Your task to perform on an android device: show emergency info Image 0: 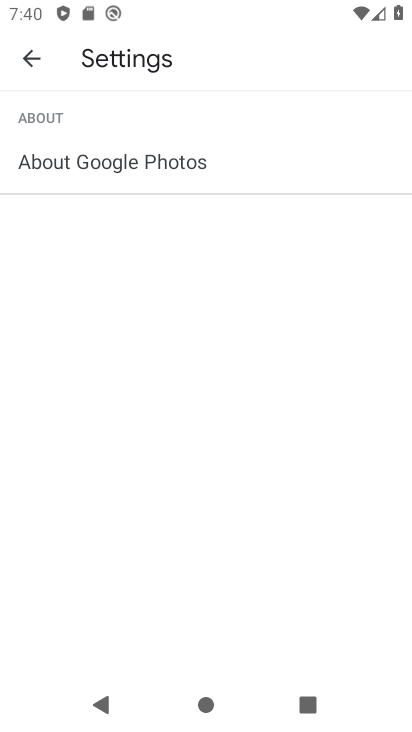
Step 0: press home button
Your task to perform on an android device: show emergency info Image 1: 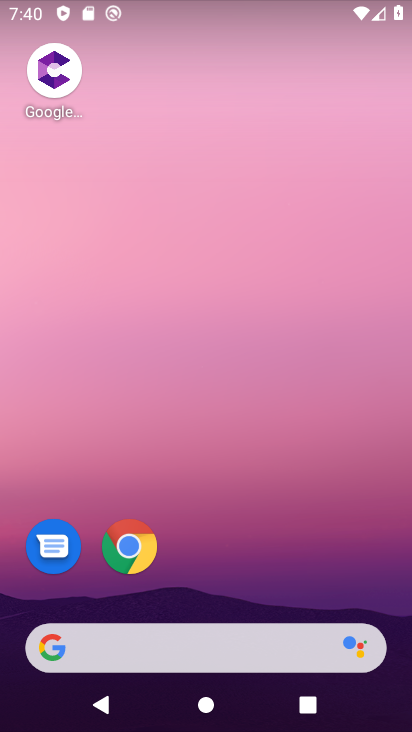
Step 1: drag from (315, 526) to (204, 75)
Your task to perform on an android device: show emergency info Image 2: 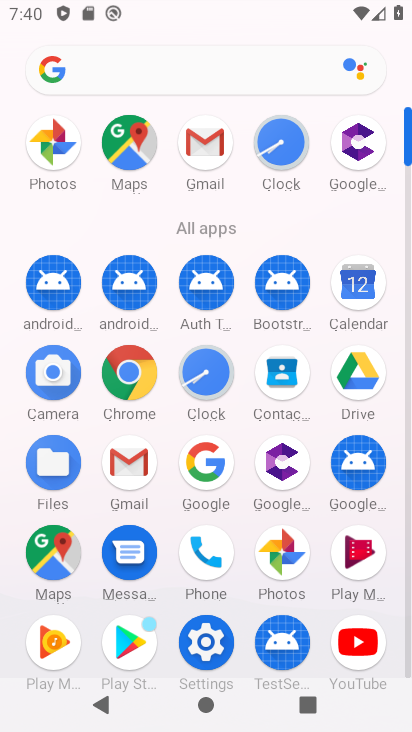
Step 2: drag from (243, 229) to (183, 77)
Your task to perform on an android device: show emergency info Image 3: 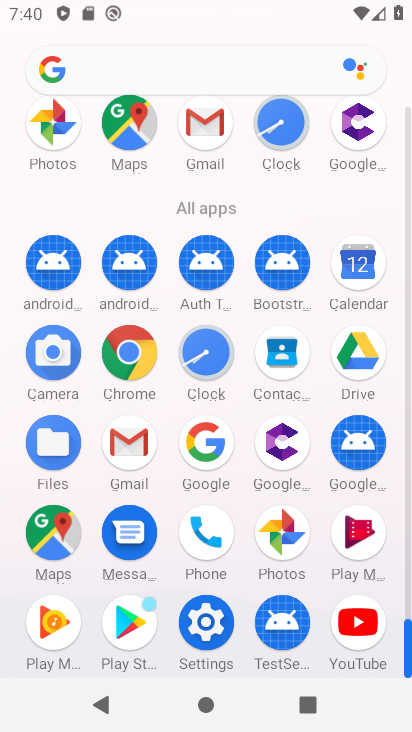
Step 3: click (212, 627)
Your task to perform on an android device: show emergency info Image 4: 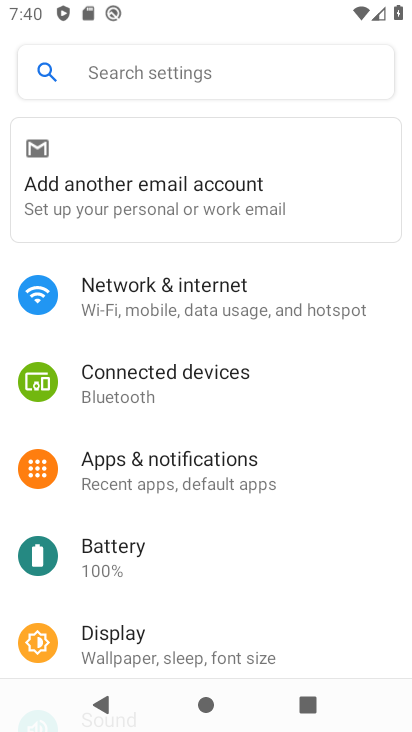
Step 4: drag from (247, 527) to (207, 348)
Your task to perform on an android device: show emergency info Image 5: 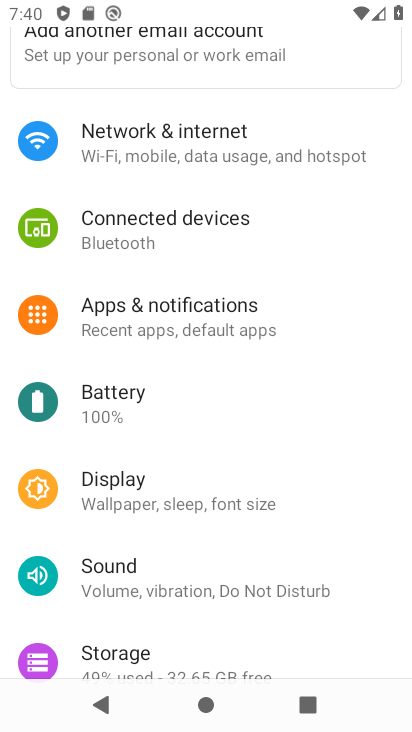
Step 5: drag from (302, 553) to (148, 4)
Your task to perform on an android device: show emergency info Image 6: 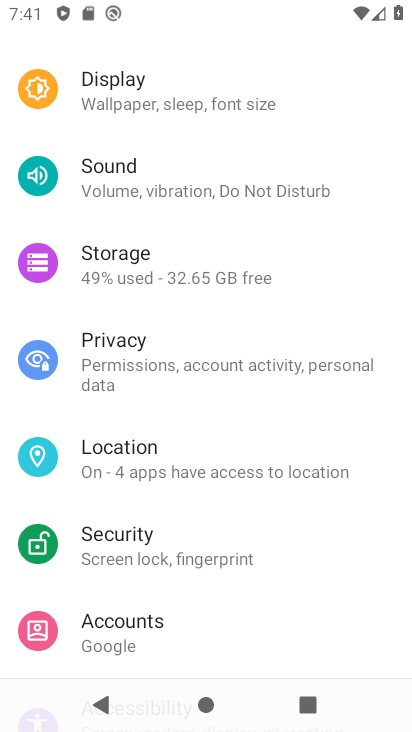
Step 6: drag from (327, 582) to (242, 280)
Your task to perform on an android device: show emergency info Image 7: 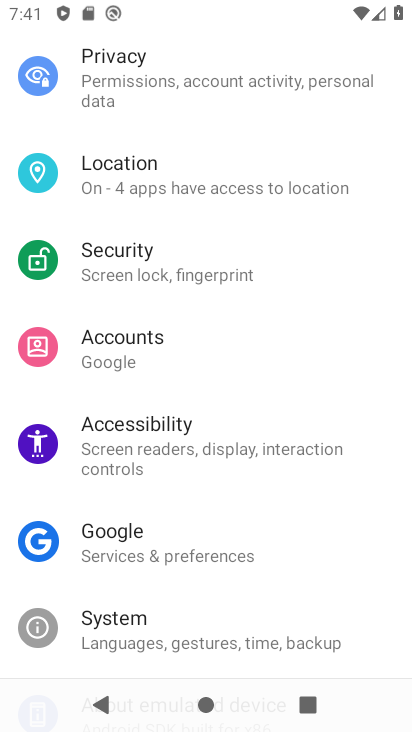
Step 7: drag from (290, 449) to (201, 242)
Your task to perform on an android device: show emergency info Image 8: 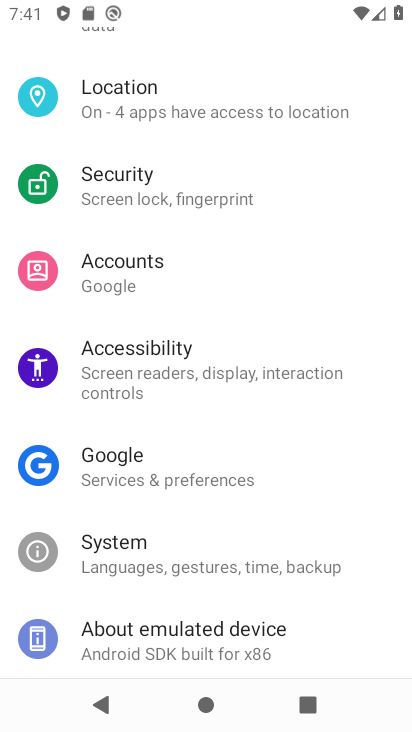
Step 8: drag from (294, 537) to (223, 330)
Your task to perform on an android device: show emergency info Image 9: 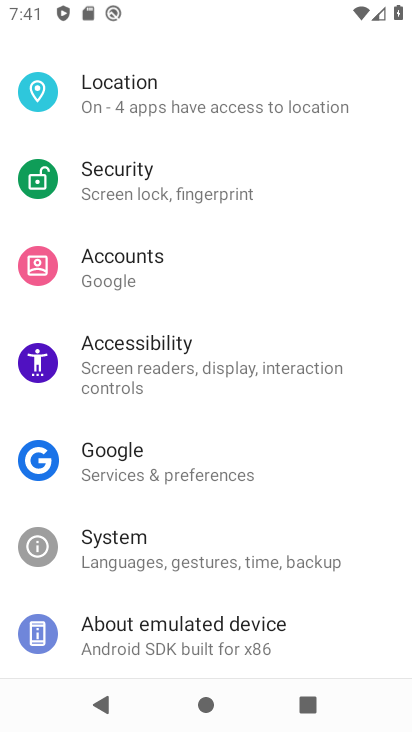
Step 9: drag from (319, 563) to (403, 392)
Your task to perform on an android device: show emergency info Image 10: 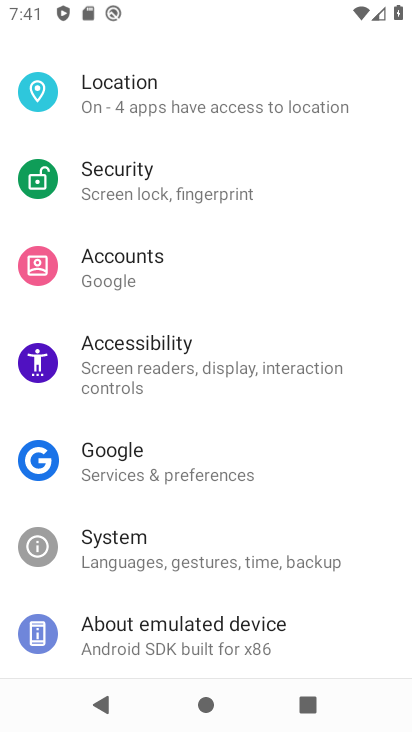
Step 10: click (177, 625)
Your task to perform on an android device: show emergency info Image 11: 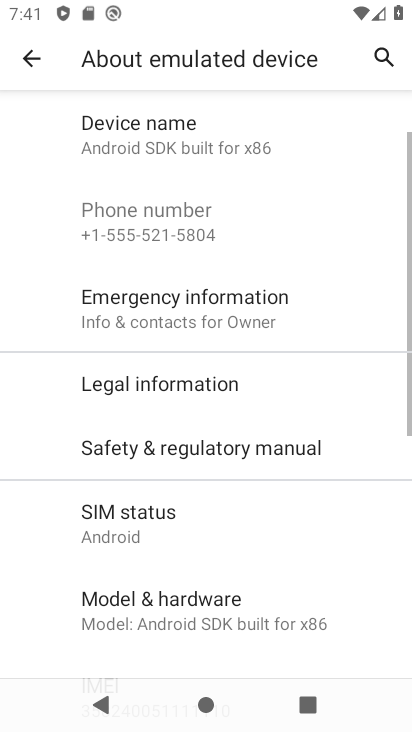
Step 11: click (308, 305)
Your task to perform on an android device: show emergency info Image 12: 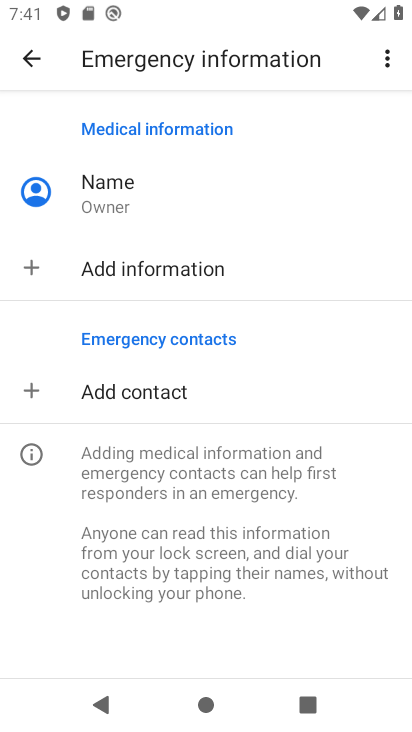
Step 12: task complete